Your task to perform on an android device: open the mobile data screen to see how much data has been used Image 0: 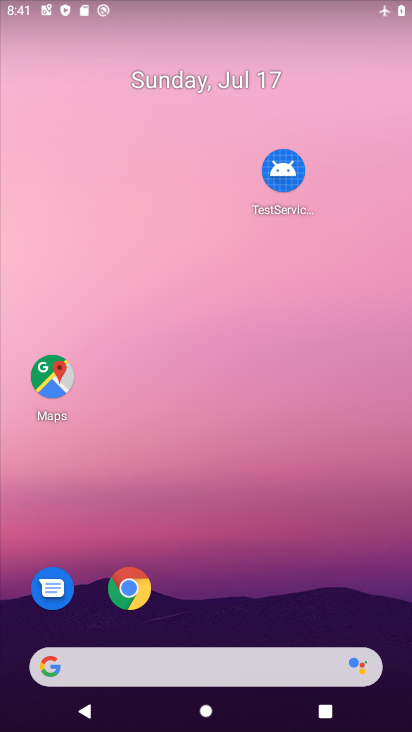
Step 0: press home button
Your task to perform on an android device: open the mobile data screen to see how much data has been used Image 1: 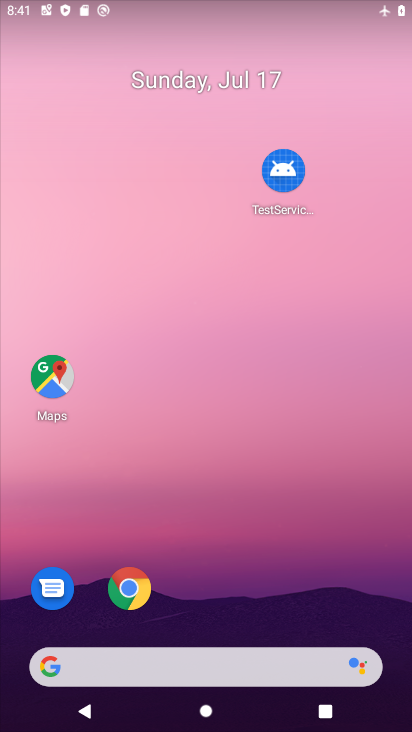
Step 1: drag from (232, 606) to (232, 144)
Your task to perform on an android device: open the mobile data screen to see how much data has been used Image 2: 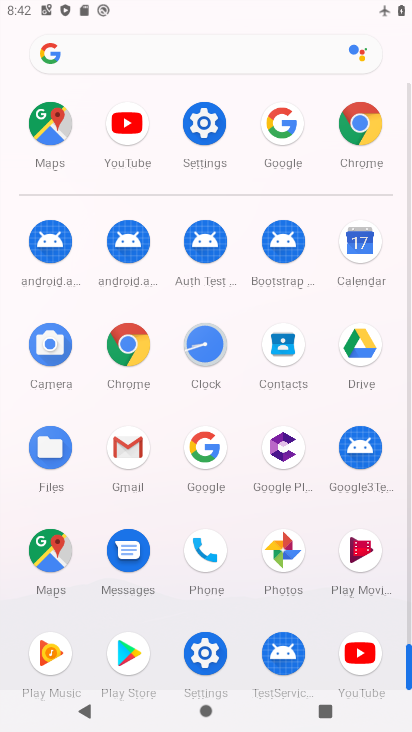
Step 2: click (207, 149)
Your task to perform on an android device: open the mobile data screen to see how much data has been used Image 3: 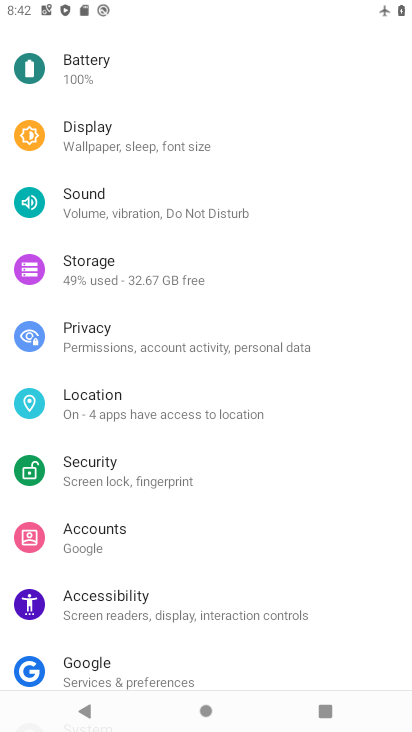
Step 3: drag from (159, 211) to (123, 676)
Your task to perform on an android device: open the mobile data screen to see how much data has been used Image 4: 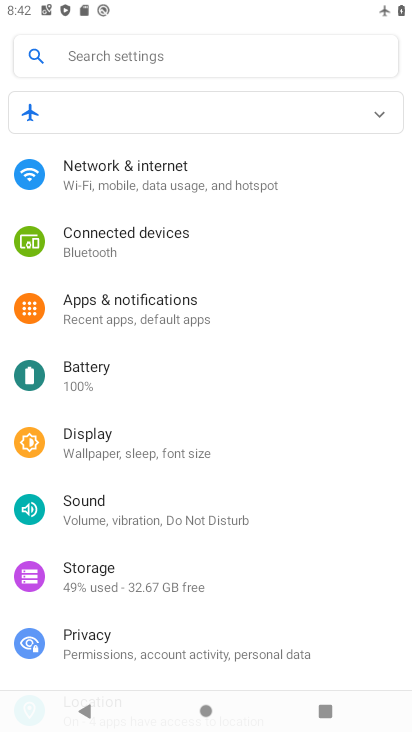
Step 4: click (156, 176)
Your task to perform on an android device: open the mobile data screen to see how much data has been used Image 5: 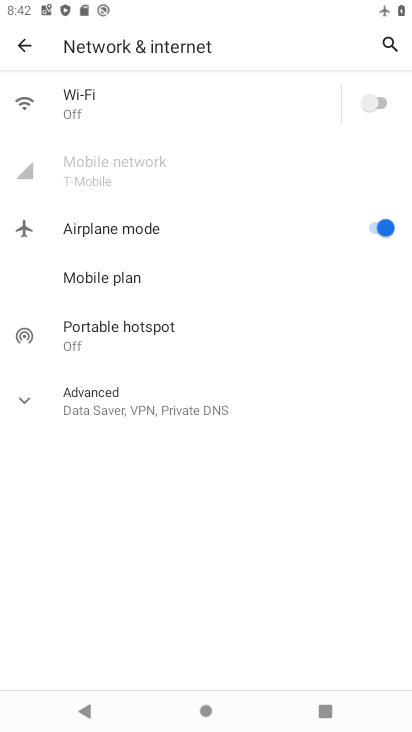
Step 5: task complete